Your task to perform on an android device: Go to Amazon Image 0: 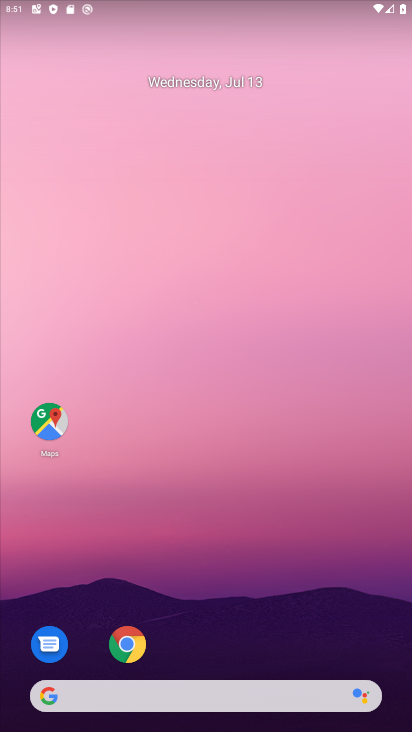
Step 0: click (85, 452)
Your task to perform on an android device: Go to Amazon Image 1: 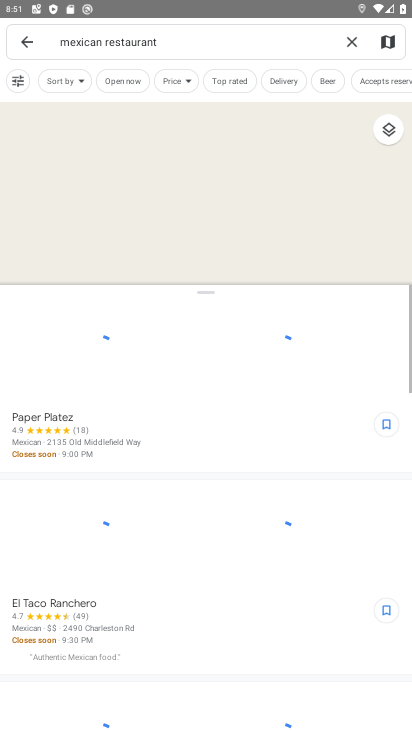
Step 1: press home button
Your task to perform on an android device: Go to Amazon Image 2: 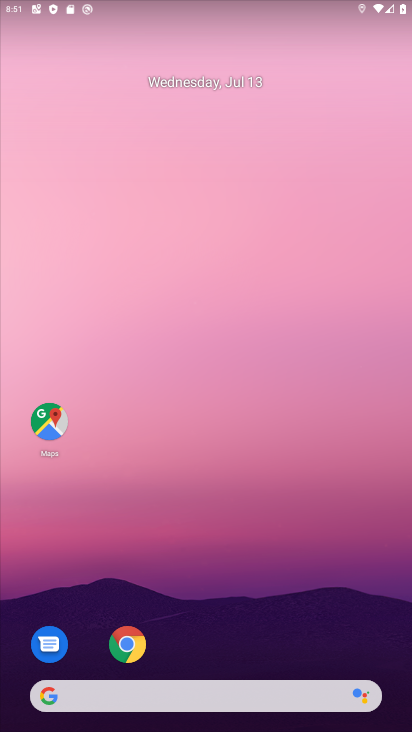
Step 2: drag from (199, 721) to (253, 184)
Your task to perform on an android device: Go to Amazon Image 3: 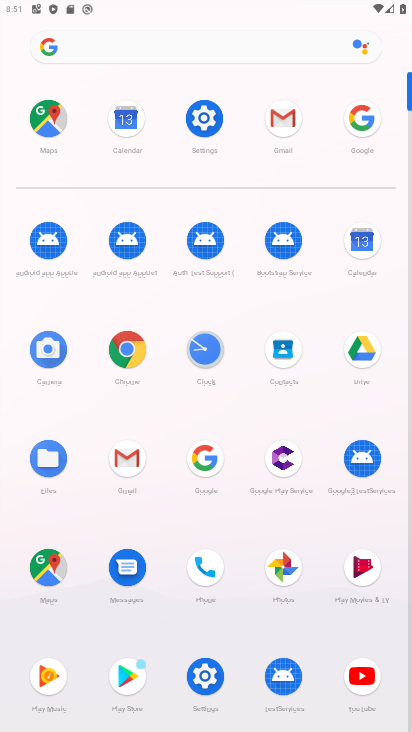
Step 3: click (128, 352)
Your task to perform on an android device: Go to Amazon Image 4: 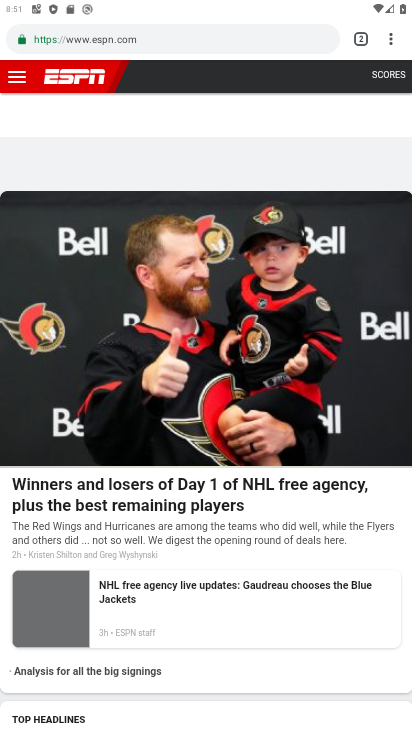
Step 4: click (391, 45)
Your task to perform on an android device: Go to Amazon Image 5: 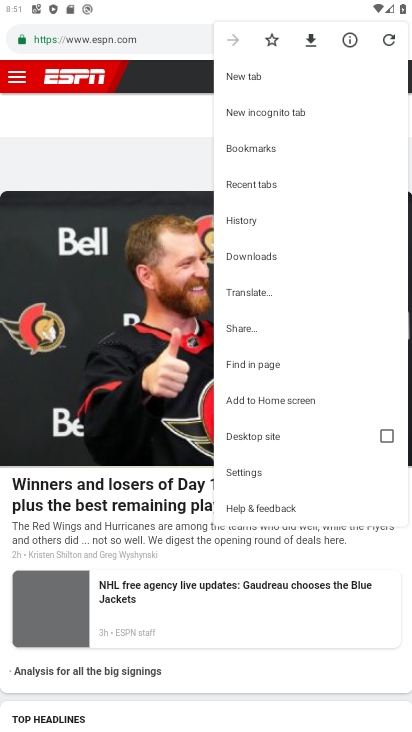
Step 5: click (243, 76)
Your task to perform on an android device: Go to Amazon Image 6: 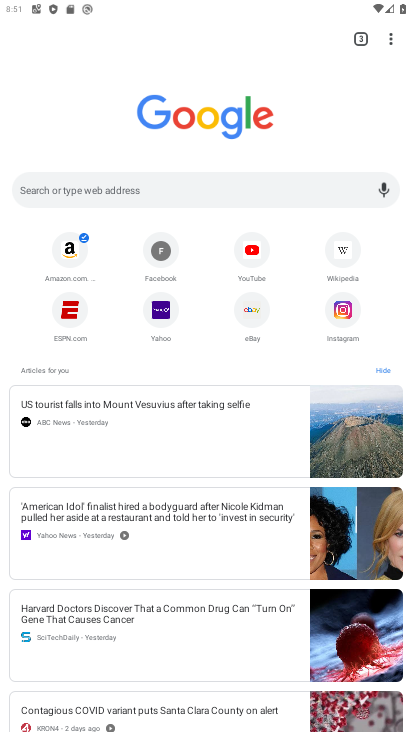
Step 6: click (64, 257)
Your task to perform on an android device: Go to Amazon Image 7: 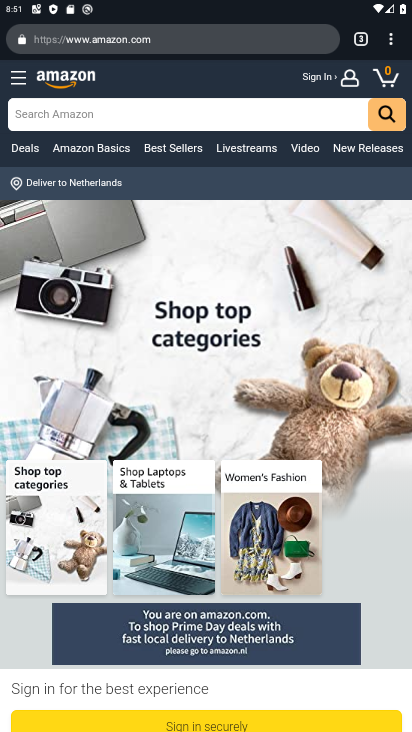
Step 7: task complete